Your task to perform on an android device: Go to Maps Image 0: 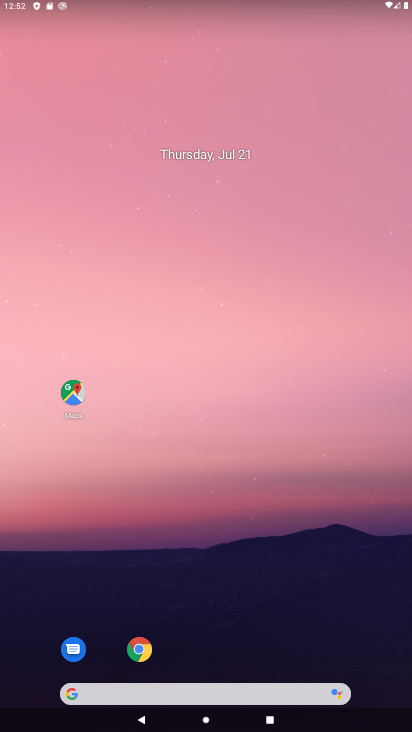
Step 0: click (72, 393)
Your task to perform on an android device: Go to Maps Image 1: 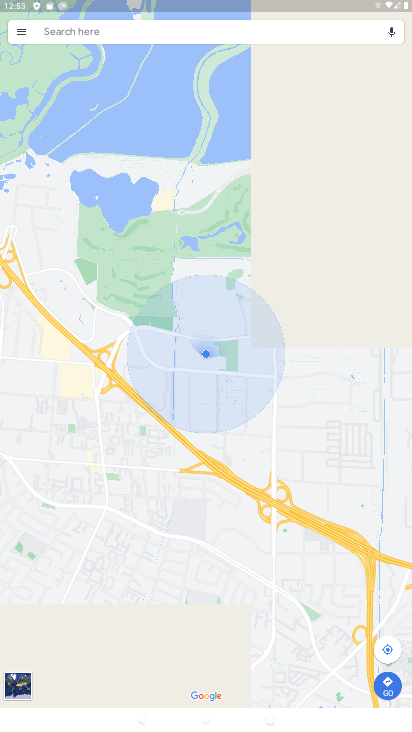
Step 1: task complete